Your task to perform on an android device: Is it going to rain this weekend? Image 0: 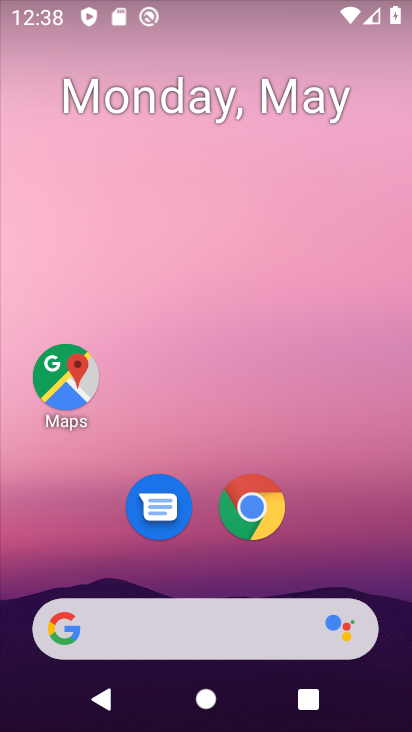
Step 0: drag from (236, 718) to (240, 142)
Your task to perform on an android device: Is it going to rain this weekend? Image 1: 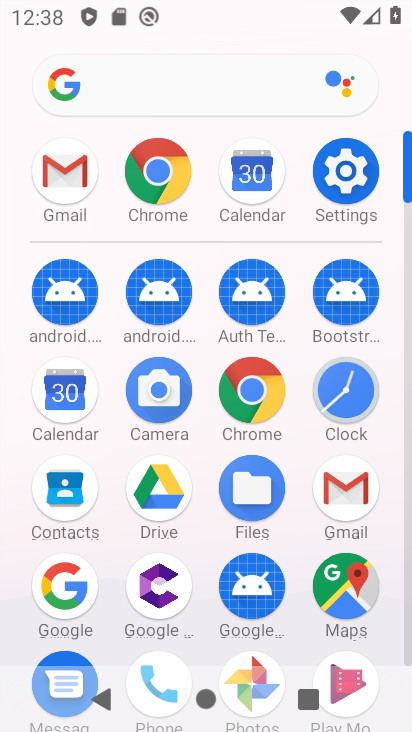
Step 1: click (63, 583)
Your task to perform on an android device: Is it going to rain this weekend? Image 2: 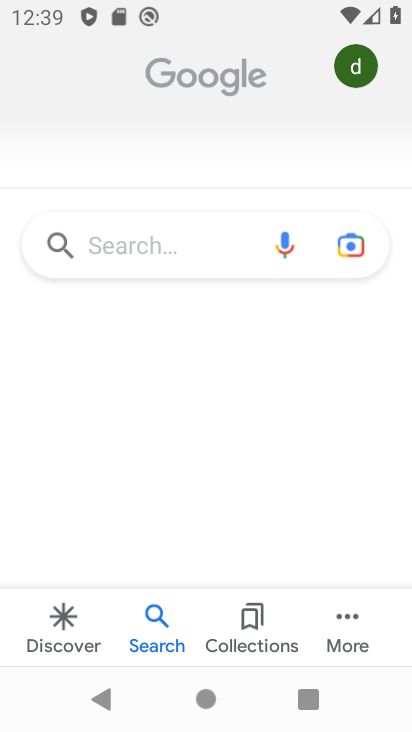
Step 2: click (156, 247)
Your task to perform on an android device: Is it going to rain this weekend? Image 3: 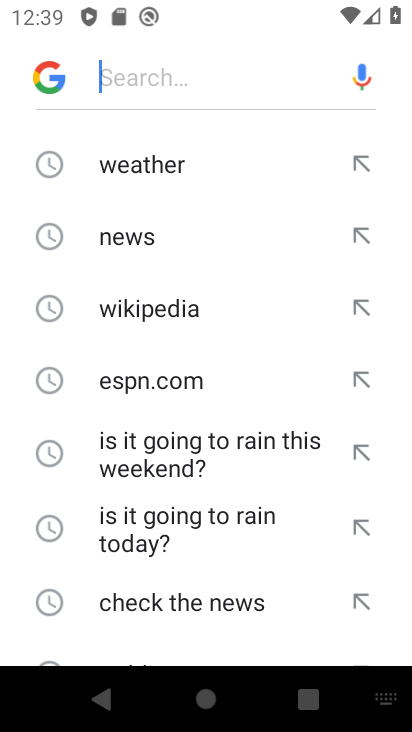
Step 3: click (137, 157)
Your task to perform on an android device: Is it going to rain this weekend? Image 4: 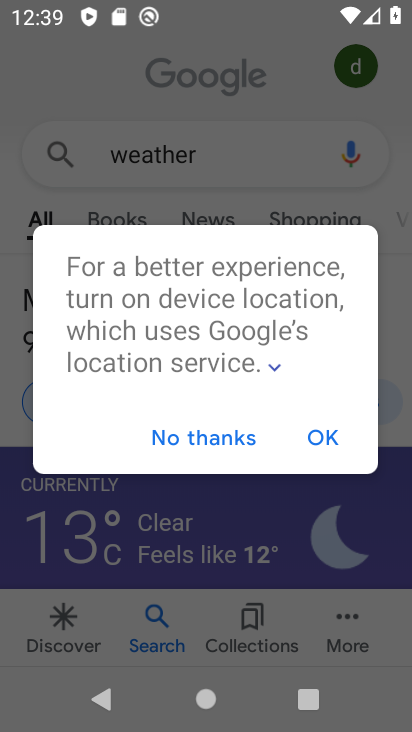
Step 4: click (179, 444)
Your task to perform on an android device: Is it going to rain this weekend? Image 5: 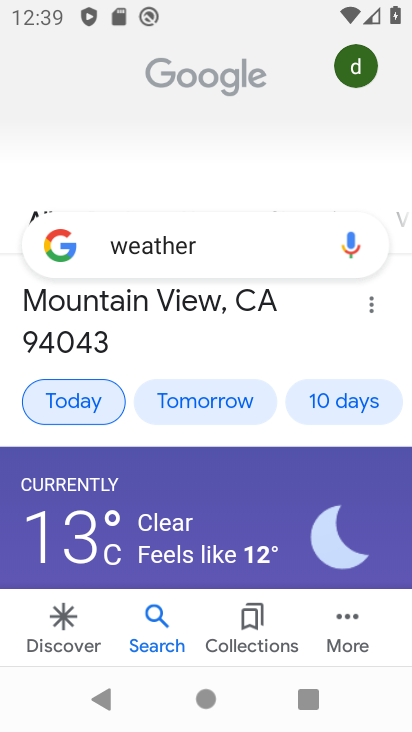
Step 5: click (340, 403)
Your task to perform on an android device: Is it going to rain this weekend? Image 6: 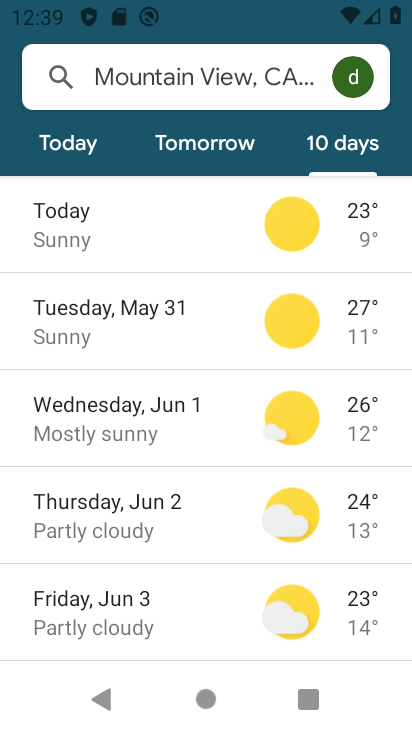
Step 6: task complete